Your task to perform on an android device: toggle pop-ups in chrome Image 0: 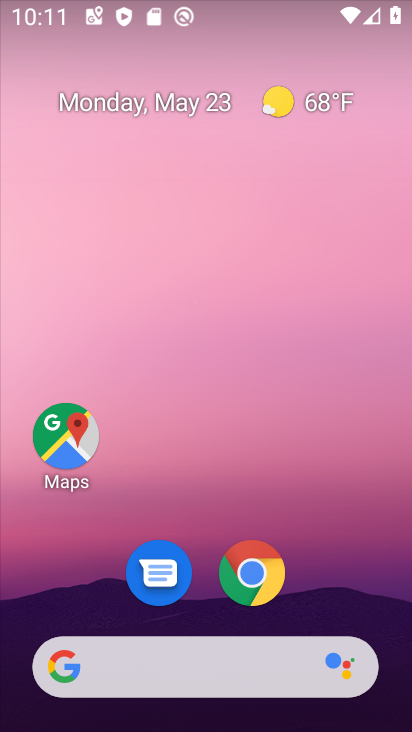
Step 0: drag from (263, 671) to (257, 303)
Your task to perform on an android device: toggle pop-ups in chrome Image 1: 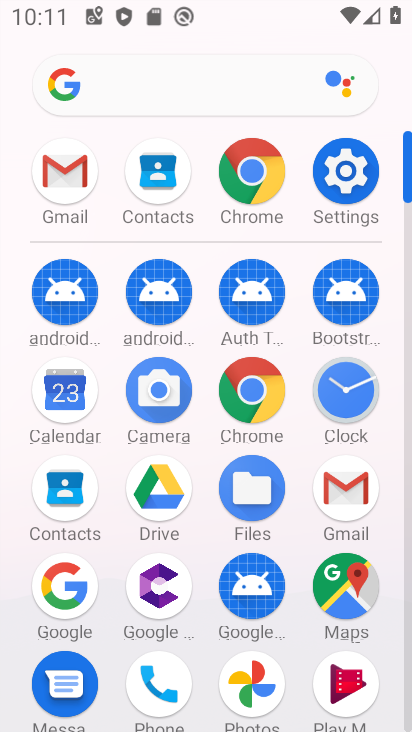
Step 1: click (260, 197)
Your task to perform on an android device: toggle pop-ups in chrome Image 2: 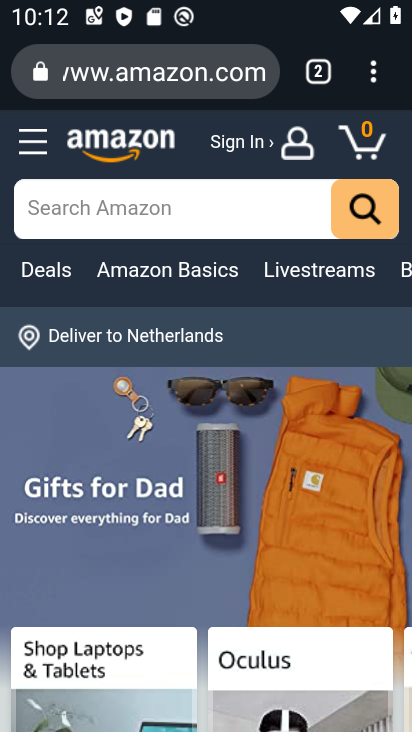
Step 2: click (369, 64)
Your task to perform on an android device: toggle pop-ups in chrome Image 3: 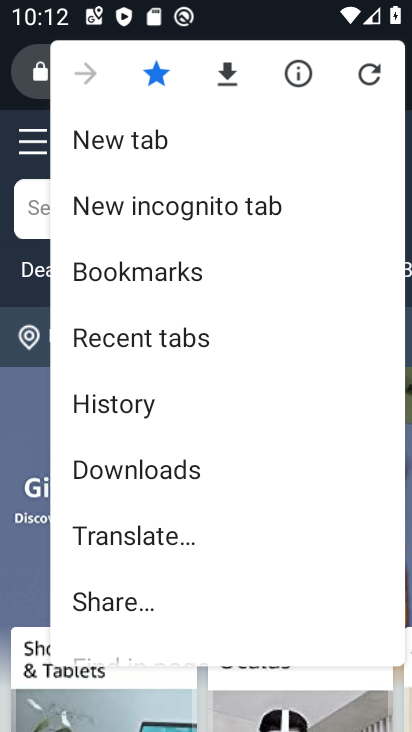
Step 3: drag from (166, 578) to (190, 55)
Your task to perform on an android device: toggle pop-ups in chrome Image 4: 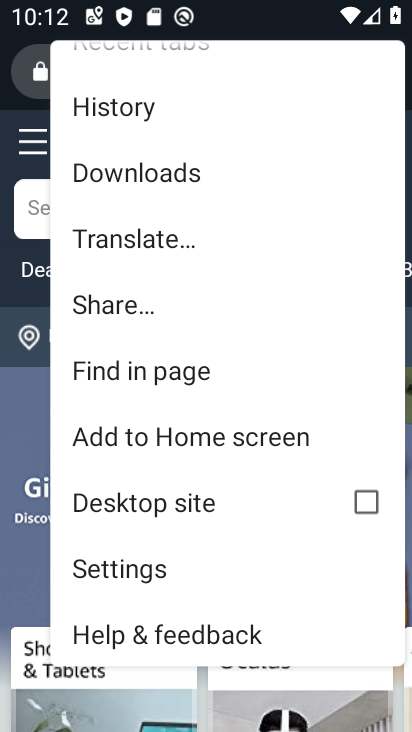
Step 4: click (184, 572)
Your task to perform on an android device: toggle pop-ups in chrome Image 5: 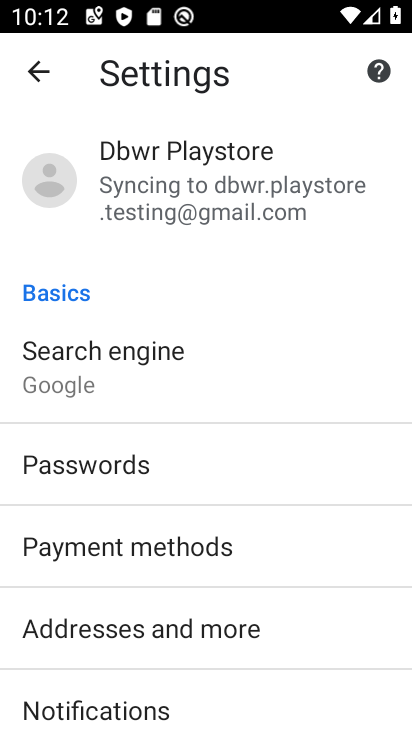
Step 5: drag from (216, 648) to (155, 164)
Your task to perform on an android device: toggle pop-ups in chrome Image 6: 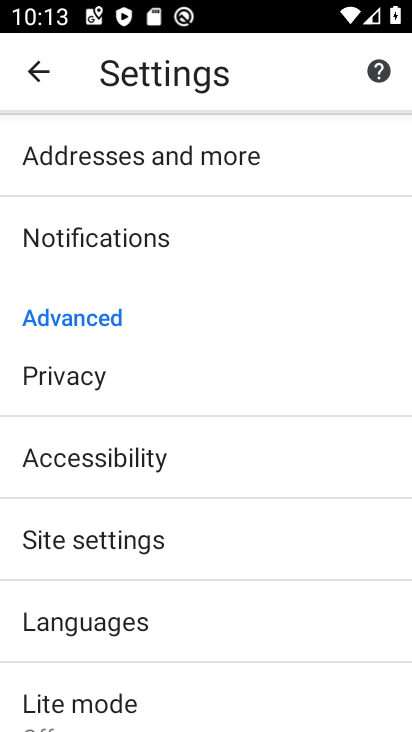
Step 6: click (132, 545)
Your task to perform on an android device: toggle pop-ups in chrome Image 7: 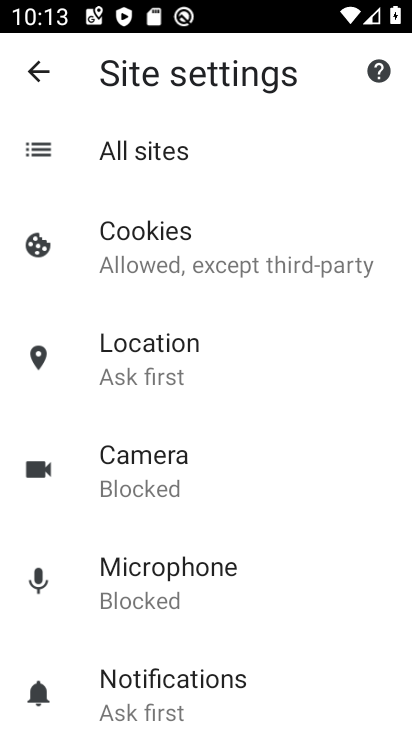
Step 7: drag from (234, 576) to (229, 236)
Your task to perform on an android device: toggle pop-ups in chrome Image 8: 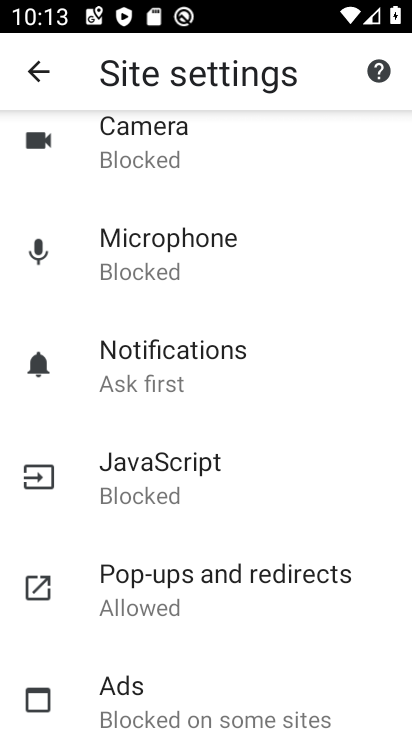
Step 8: click (205, 588)
Your task to perform on an android device: toggle pop-ups in chrome Image 9: 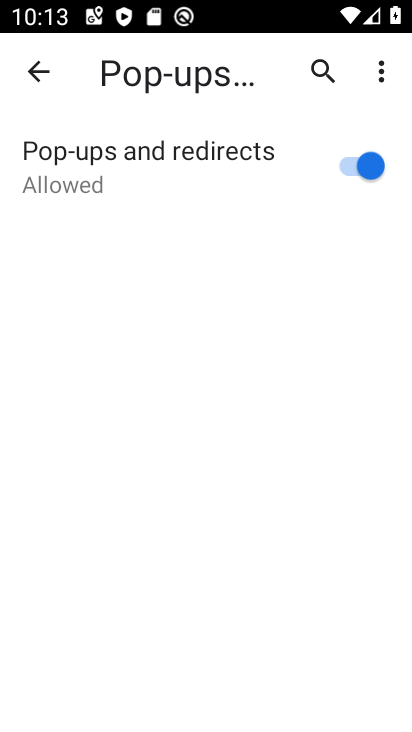
Step 9: click (346, 166)
Your task to perform on an android device: toggle pop-ups in chrome Image 10: 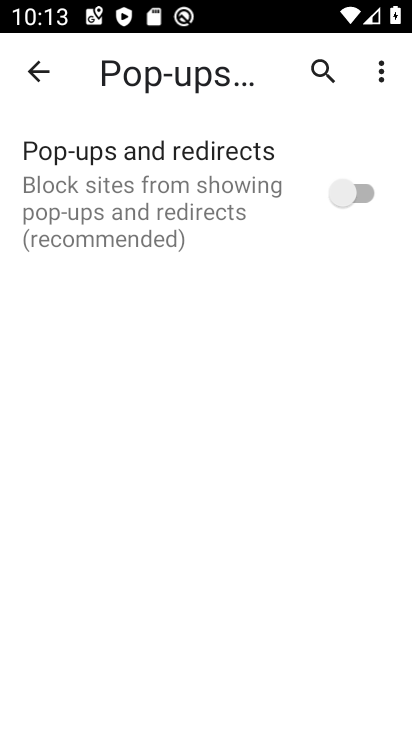
Step 10: task complete